Your task to perform on an android device: Turn on the flashlight Image 0: 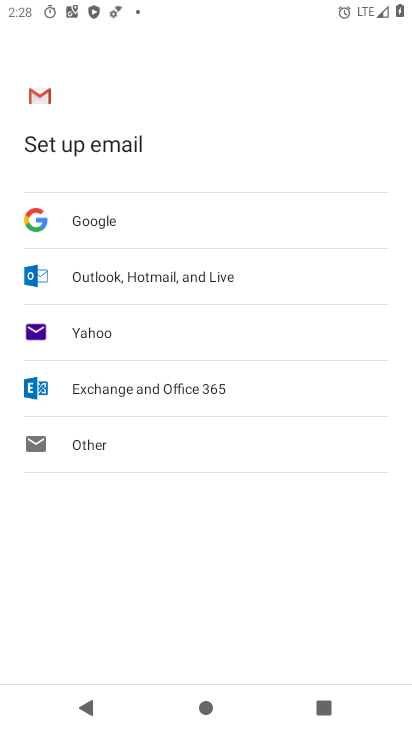
Step 0: press home button
Your task to perform on an android device: Turn on the flashlight Image 1: 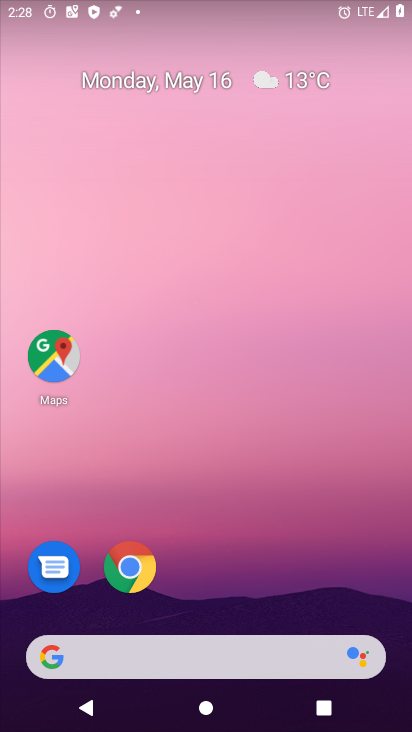
Step 1: task complete